Your task to perform on an android device: set default search engine in the chrome app Image 0: 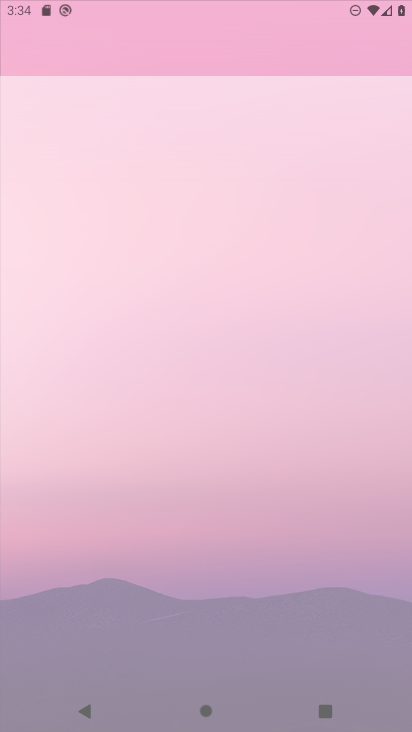
Step 0: press home button
Your task to perform on an android device: set default search engine in the chrome app Image 1: 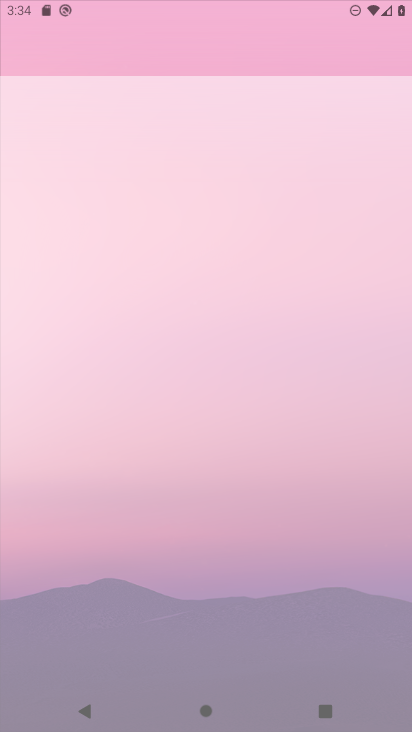
Step 1: click (54, 371)
Your task to perform on an android device: set default search engine in the chrome app Image 2: 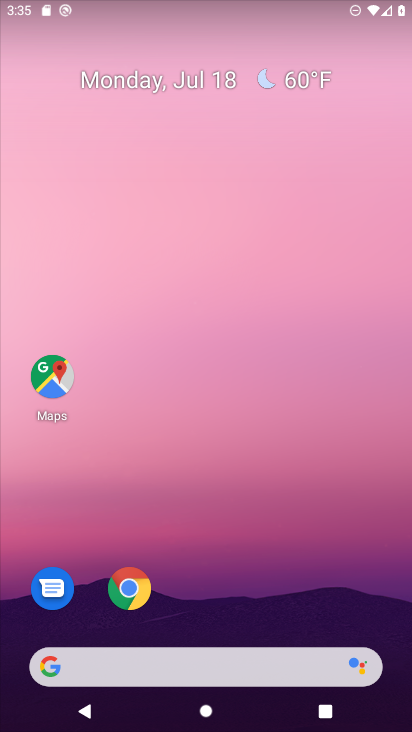
Step 2: click (122, 582)
Your task to perform on an android device: set default search engine in the chrome app Image 3: 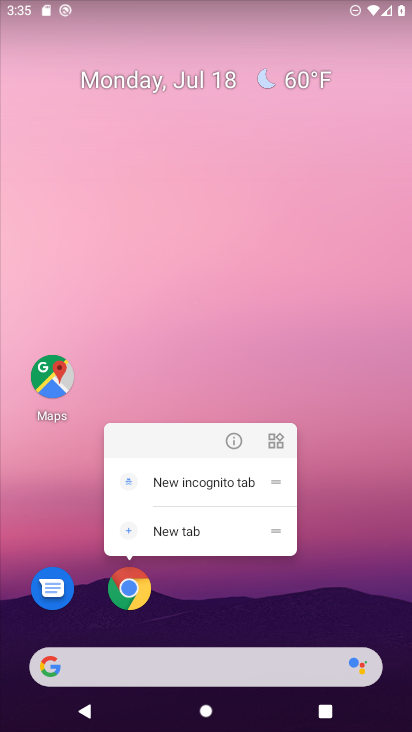
Step 3: click (131, 586)
Your task to perform on an android device: set default search engine in the chrome app Image 4: 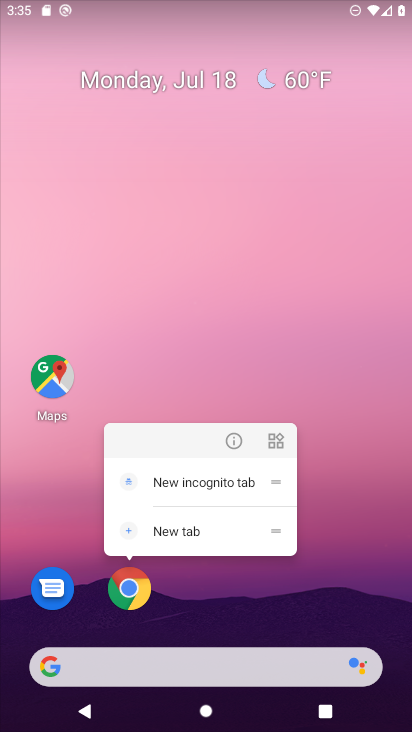
Step 4: click (132, 586)
Your task to perform on an android device: set default search engine in the chrome app Image 5: 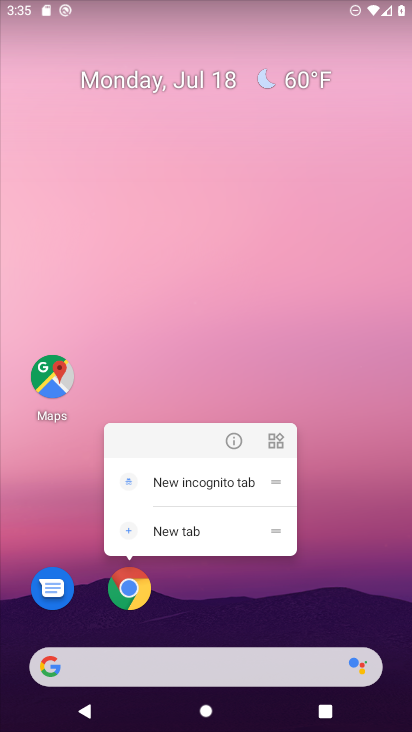
Step 5: click (132, 586)
Your task to perform on an android device: set default search engine in the chrome app Image 6: 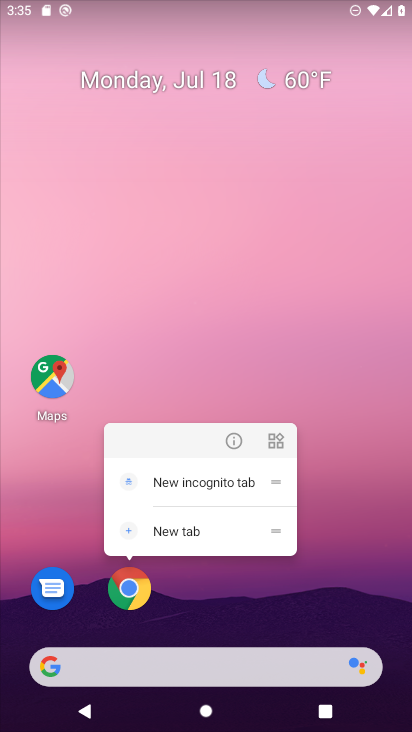
Step 6: click (127, 580)
Your task to perform on an android device: set default search engine in the chrome app Image 7: 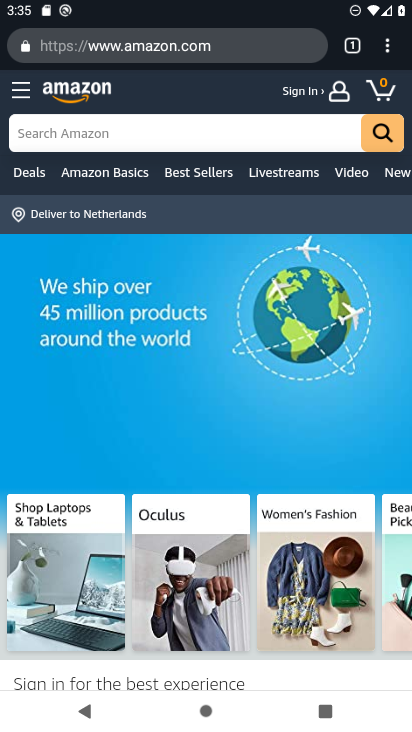
Step 7: click (390, 46)
Your task to perform on an android device: set default search engine in the chrome app Image 8: 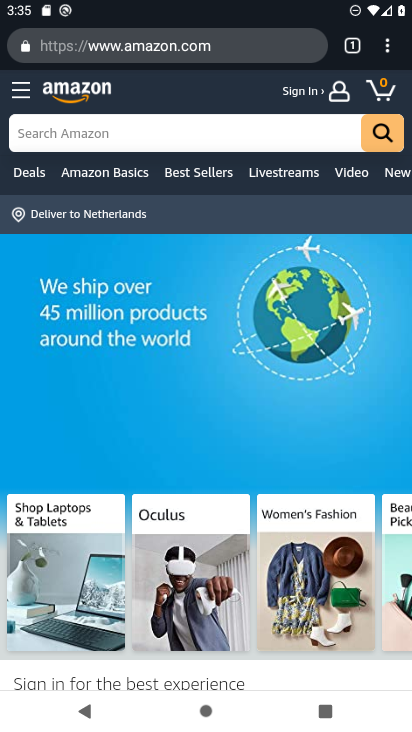
Step 8: click (391, 45)
Your task to perform on an android device: set default search engine in the chrome app Image 9: 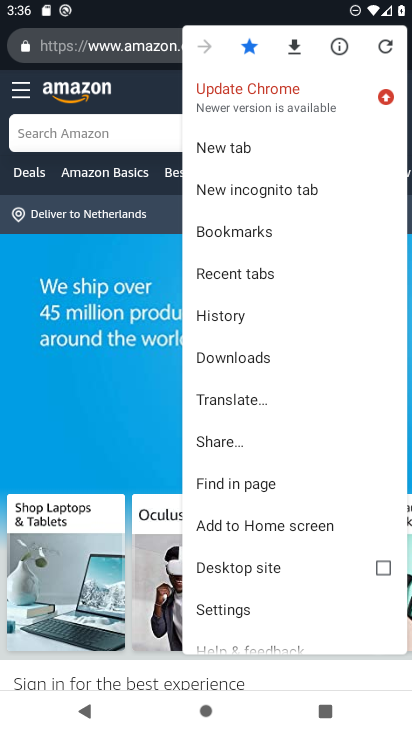
Step 9: click (245, 600)
Your task to perform on an android device: set default search engine in the chrome app Image 10: 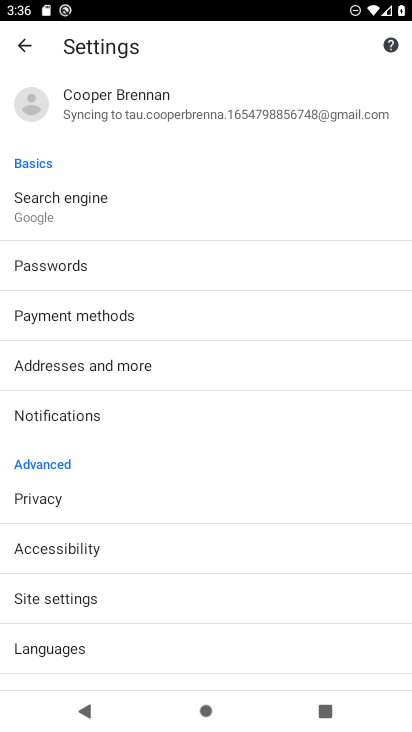
Step 10: click (99, 217)
Your task to perform on an android device: set default search engine in the chrome app Image 11: 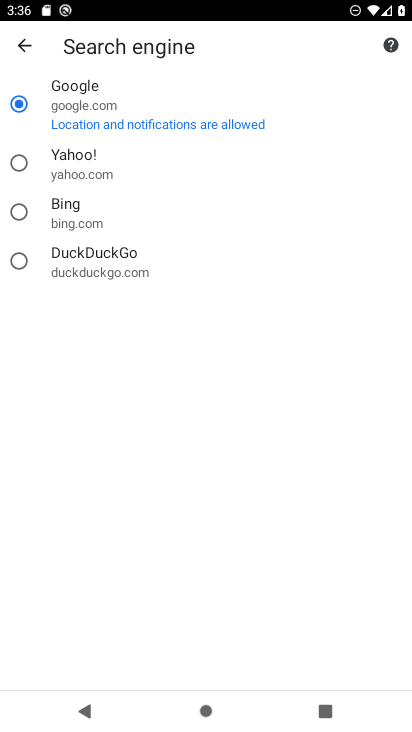
Step 11: click (23, 208)
Your task to perform on an android device: set default search engine in the chrome app Image 12: 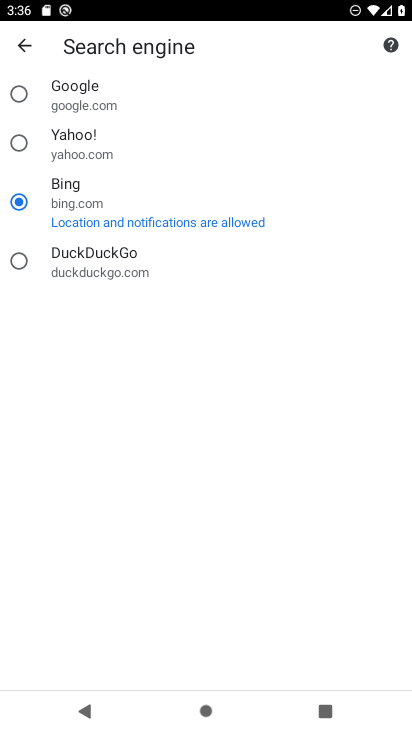
Step 12: task complete